Your task to perform on an android device: Go to Android settings Image 0: 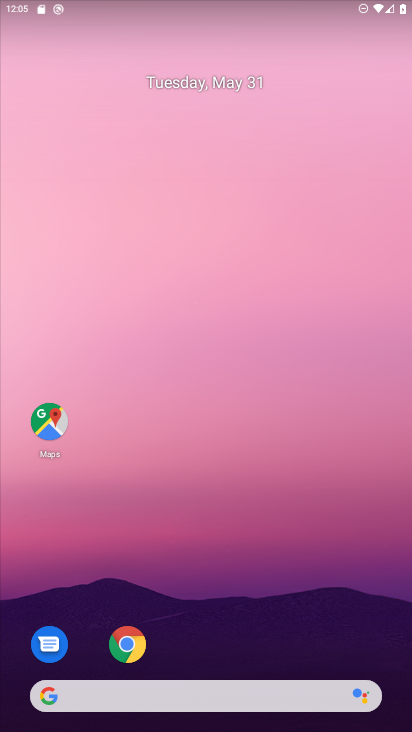
Step 0: drag from (177, 619) to (210, 2)
Your task to perform on an android device: Go to Android settings Image 1: 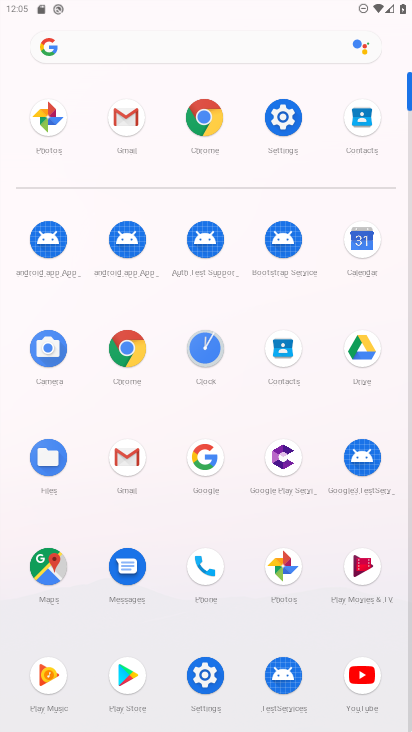
Step 1: click (272, 124)
Your task to perform on an android device: Go to Android settings Image 2: 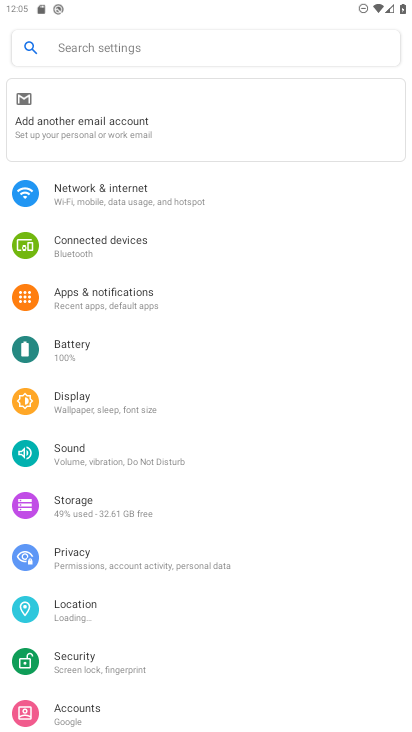
Step 2: click (109, 13)
Your task to perform on an android device: Go to Android settings Image 3: 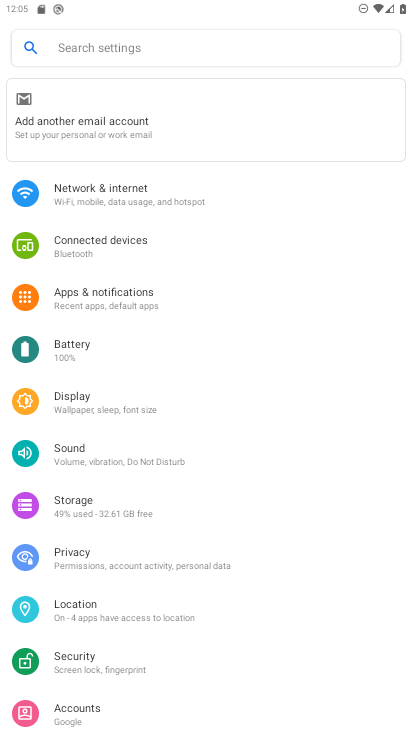
Step 3: drag from (105, 470) to (189, 83)
Your task to perform on an android device: Go to Android settings Image 4: 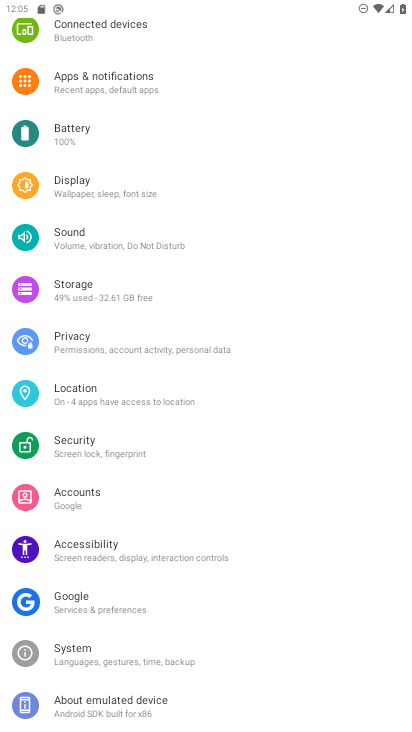
Step 4: click (137, 701)
Your task to perform on an android device: Go to Android settings Image 5: 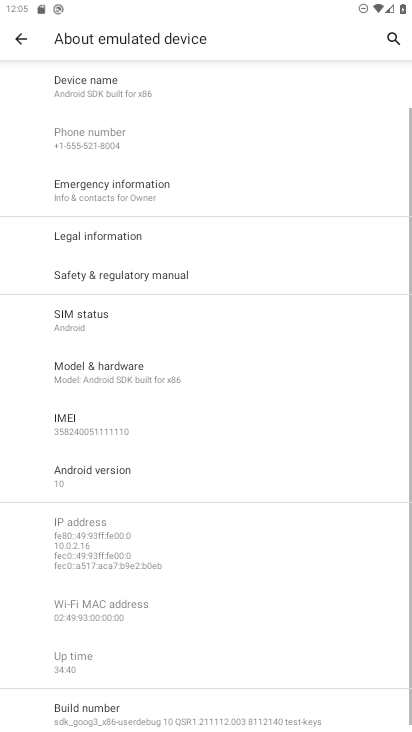
Step 5: click (148, 467)
Your task to perform on an android device: Go to Android settings Image 6: 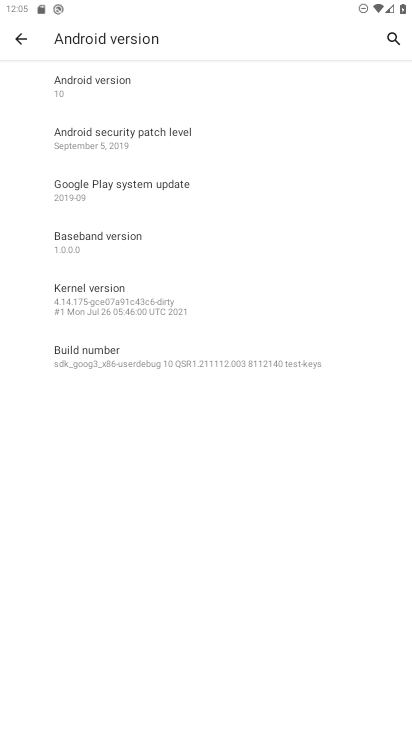
Step 6: drag from (224, 611) to (235, 272)
Your task to perform on an android device: Go to Android settings Image 7: 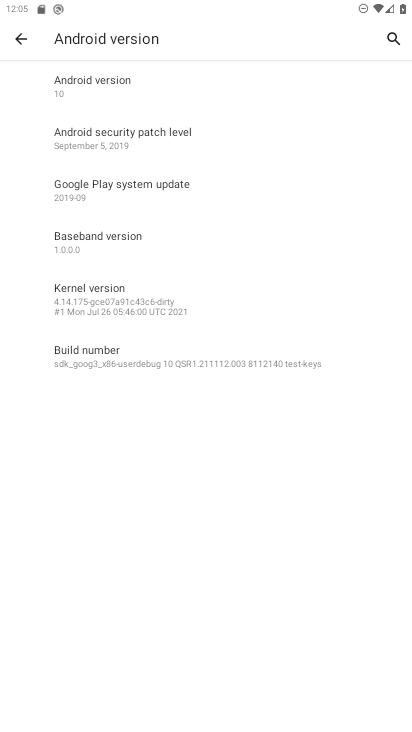
Step 7: click (308, 502)
Your task to perform on an android device: Go to Android settings Image 8: 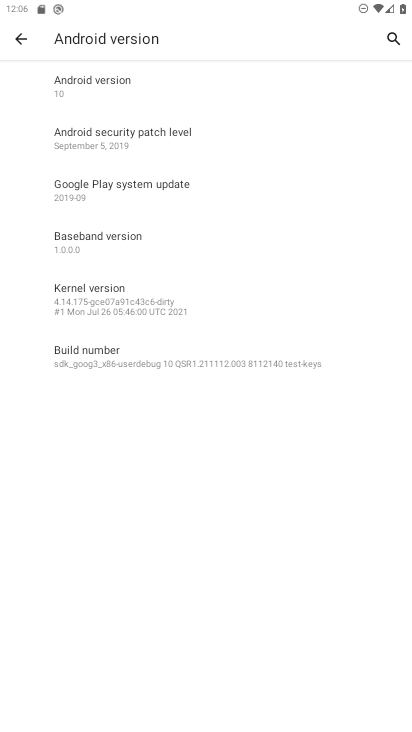
Step 8: press home button
Your task to perform on an android device: Go to Android settings Image 9: 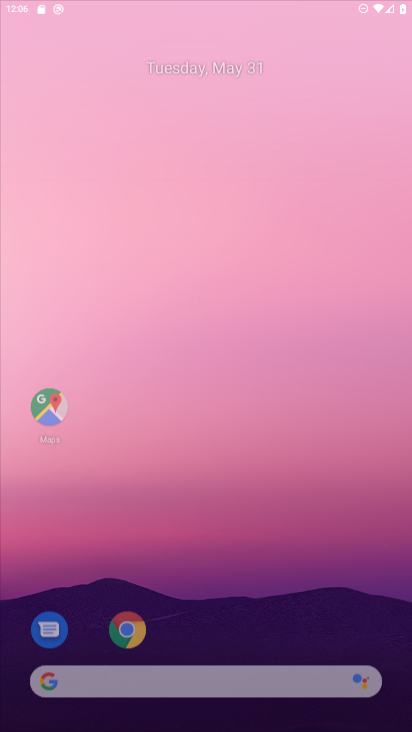
Step 9: drag from (196, 608) to (270, 170)
Your task to perform on an android device: Go to Android settings Image 10: 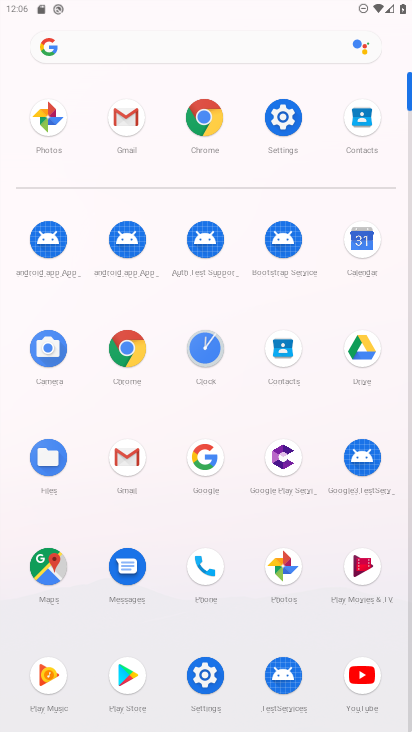
Step 10: click (205, 680)
Your task to perform on an android device: Go to Android settings Image 11: 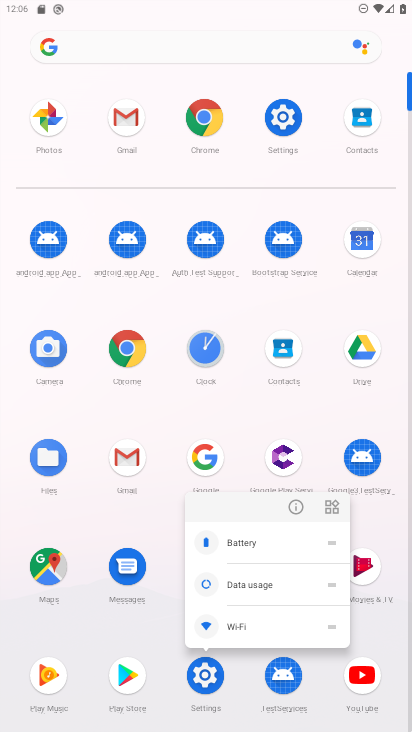
Step 11: click (291, 496)
Your task to perform on an android device: Go to Android settings Image 12: 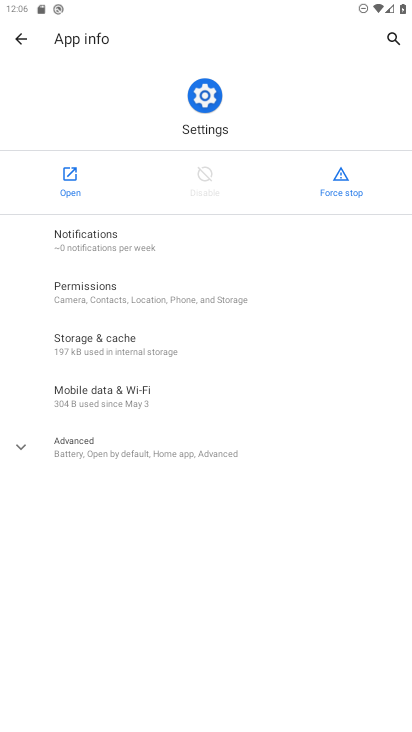
Step 12: click (77, 186)
Your task to perform on an android device: Go to Android settings Image 13: 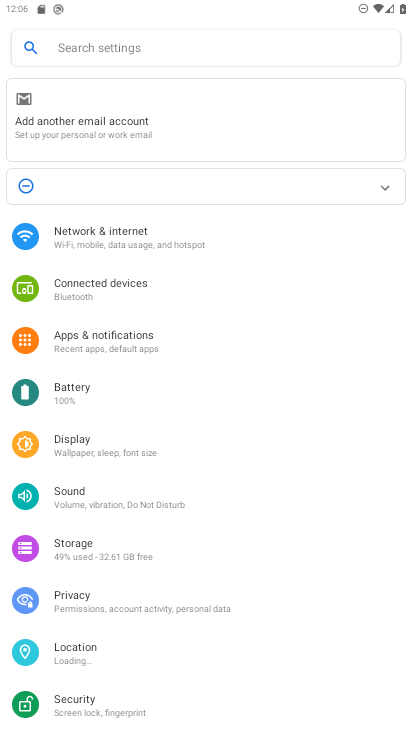
Step 13: drag from (172, 599) to (216, 7)
Your task to perform on an android device: Go to Android settings Image 14: 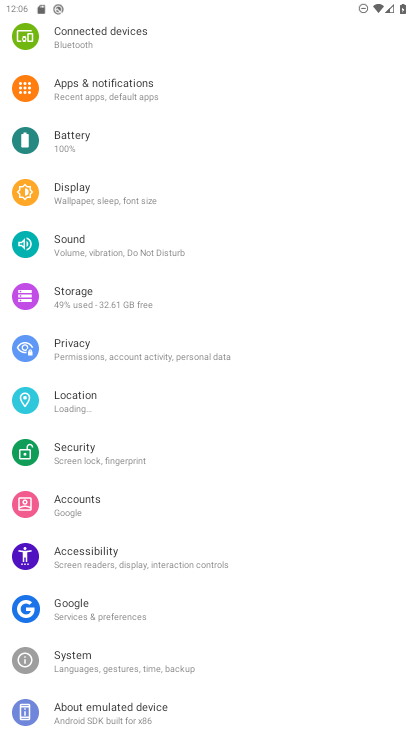
Step 14: click (163, 708)
Your task to perform on an android device: Go to Android settings Image 15: 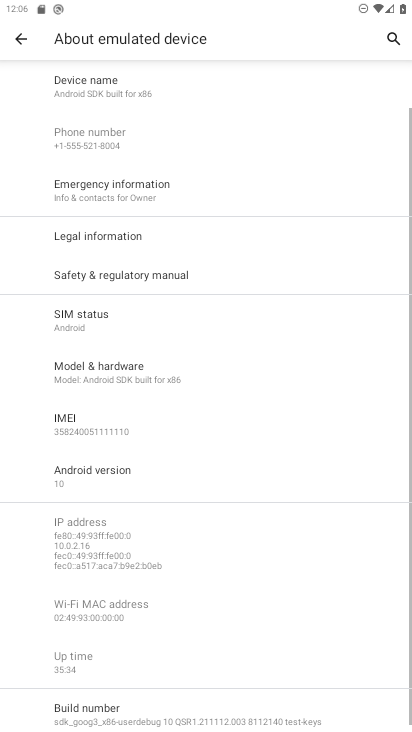
Step 15: click (110, 472)
Your task to perform on an android device: Go to Android settings Image 16: 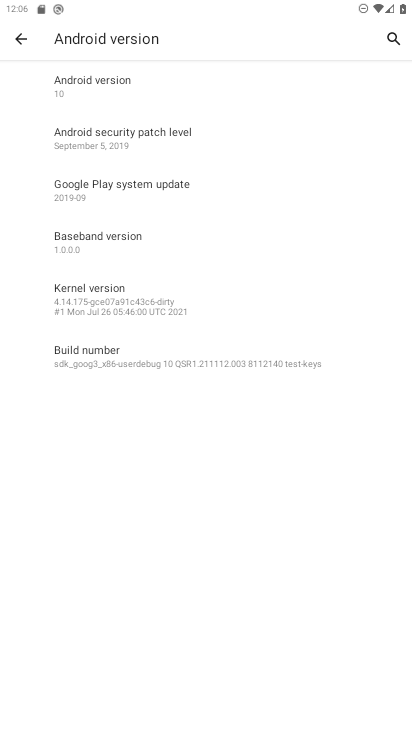
Step 16: drag from (178, 478) to (251, 191)
Your task to perform on an android device: Go to Android settings Image 17: 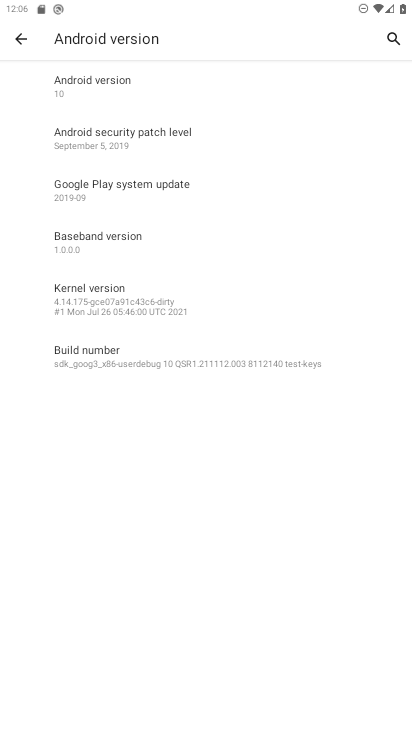
Step 17: click (143, 85)
Your task to perform on an android device: Go to Android settings Image 18: 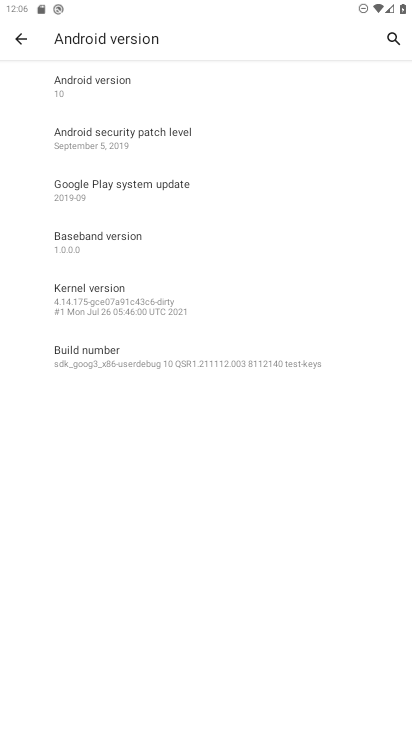
Step 18: task complete